Your task to perform on an android device: Open wifi settings Image 0: 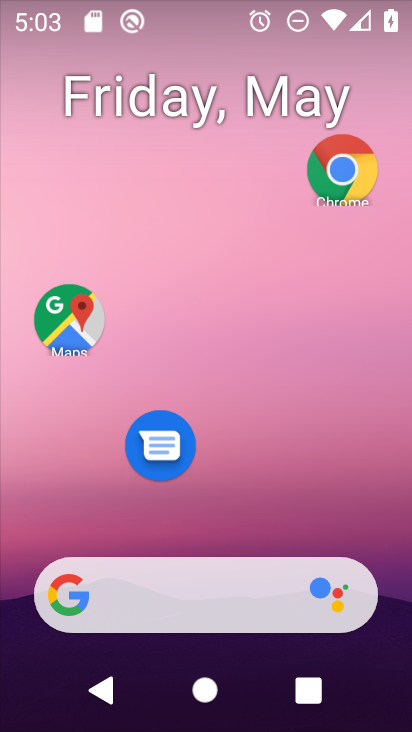
Step 0: drag from (211, 549) to (281, 34)
Your task to perform on an android device: Open wifi settings Image 1: 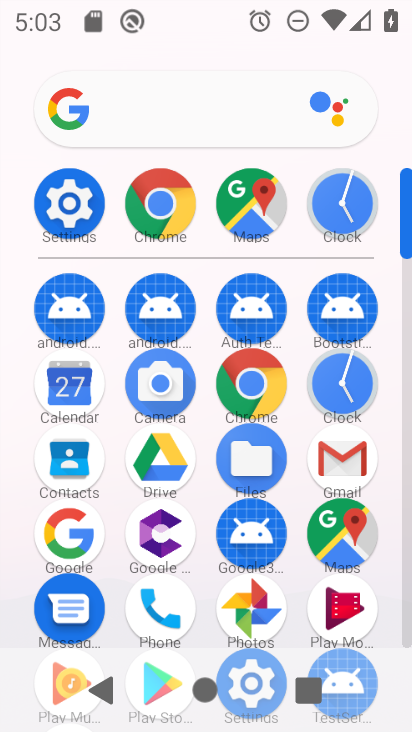
Step 1: click (86, 214)
Your task to perform on an android device: Open wifi settings Image 2: 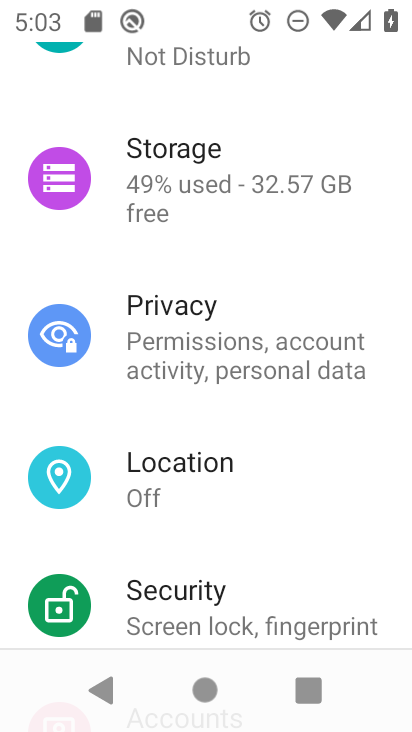
Step 2: drag from (198, 310) to (225, 673)
Your task to perform on an android device: Open wifi settings Image 3: 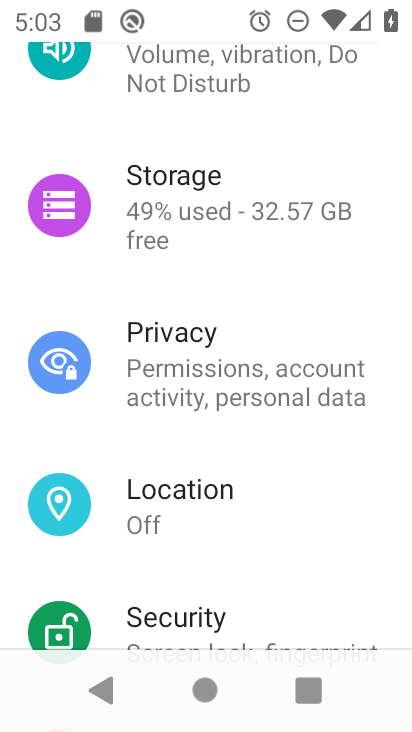
Step 3: drag from (246, 259) to (252, 683)
Your task to perform on an android device: Open wifi settings Image 4: 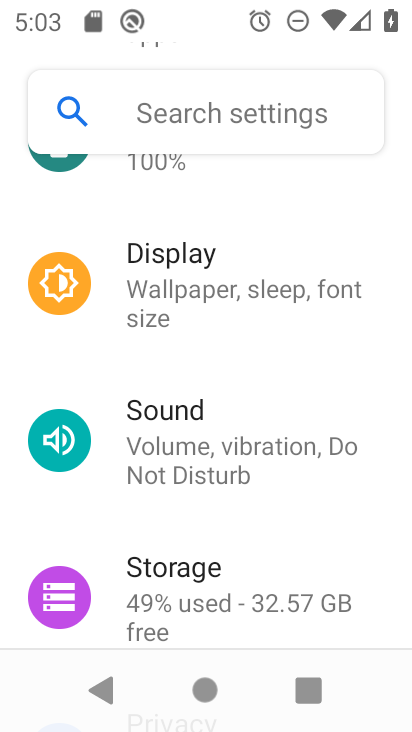
Step 4: drag from (274, 294) to (266, 668)
Your task to perform on an android device: Open wifi settings Image 5: 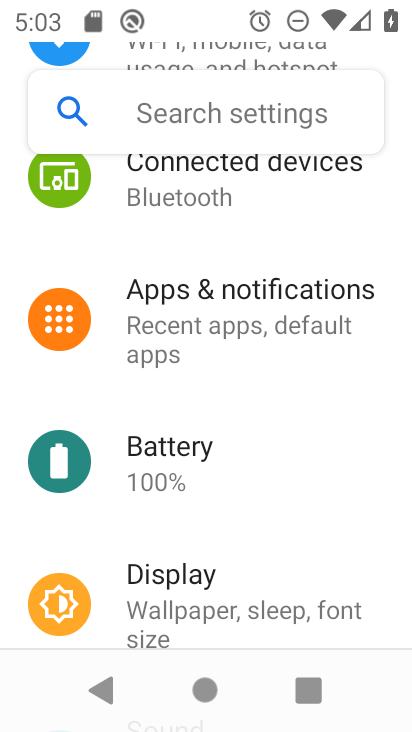
Step 5: drag from (214, 214) to (207, 696)
Your task to perform on an android device: Open wifi settings Image 6: 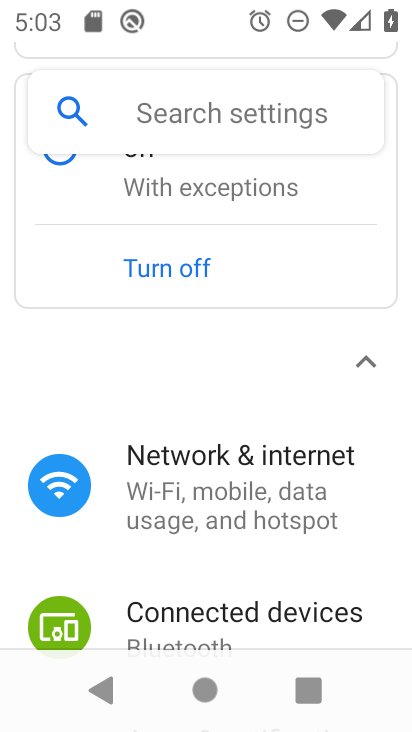
Step 6: click (210, 486)
Your task to perform on an android device: Open wifi settings Image 7: 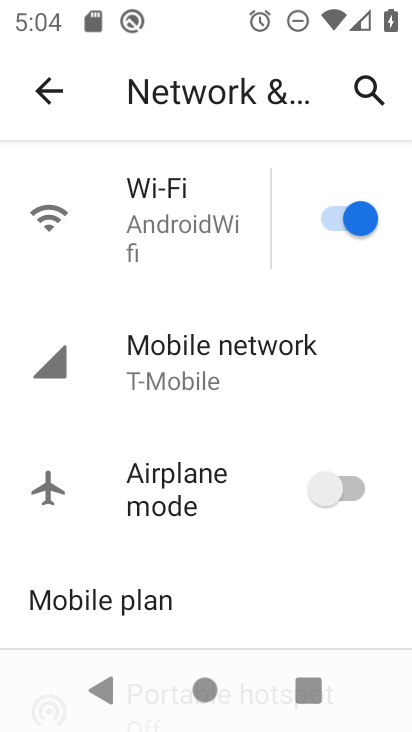
Step 7: click (166, 200)
Your task to perform on an android device: Open wifi settings Image 8: 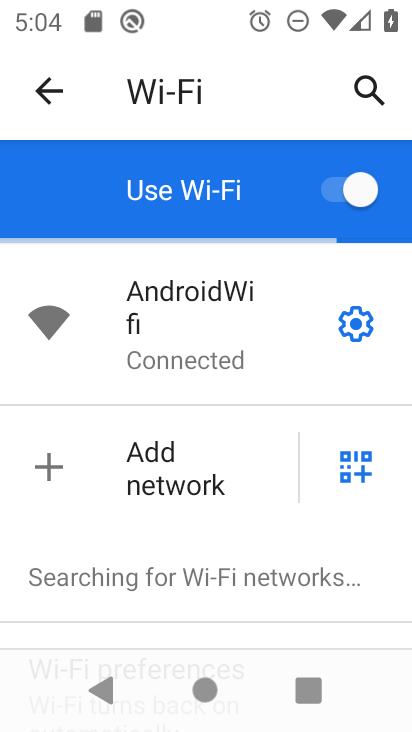
Step 8: task complete